Your task to perform on an android device: toggle show notifications on the lock screen Image 0: 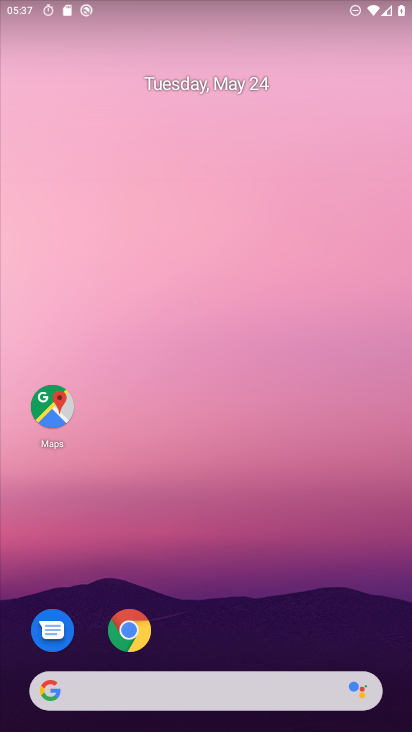
Step 0: drag from (210, 630) to (237, 79)
Your task to perform on an android device: toggle show notifications on the lock screen Image 1: 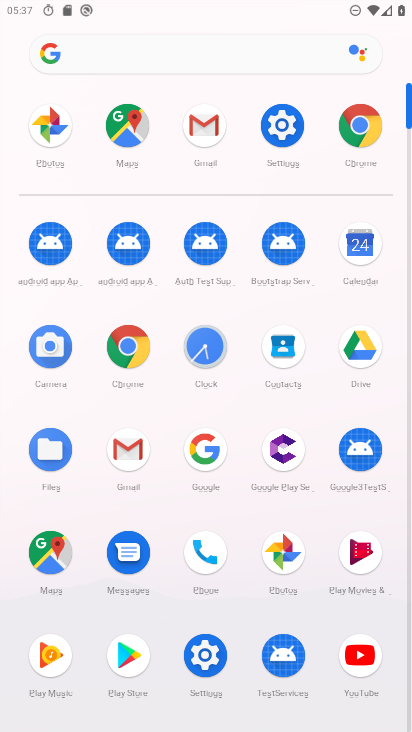
Step 1: click (264, 107)
Your task to perform on an android device: toggle show notifications on the lock screen Image 2: 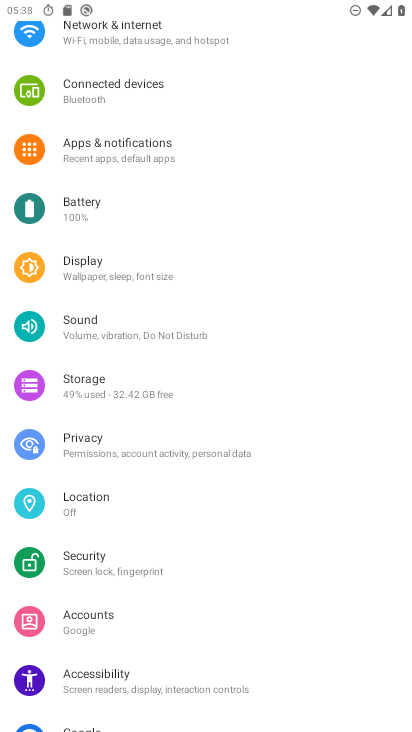
Step 2: click (234, 160)
Your task to perform on an android device: toggle show notifications on the lock screen Image 3: 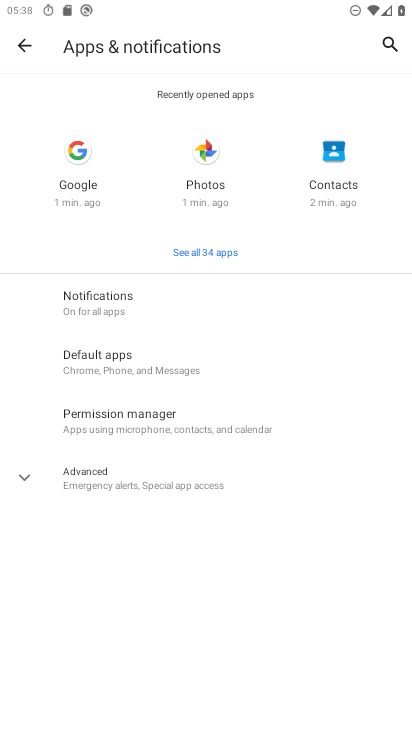
Step 3: click (133, 320)
Your task to perform on an android device: toggle show notifications on the lock screen Image 4: 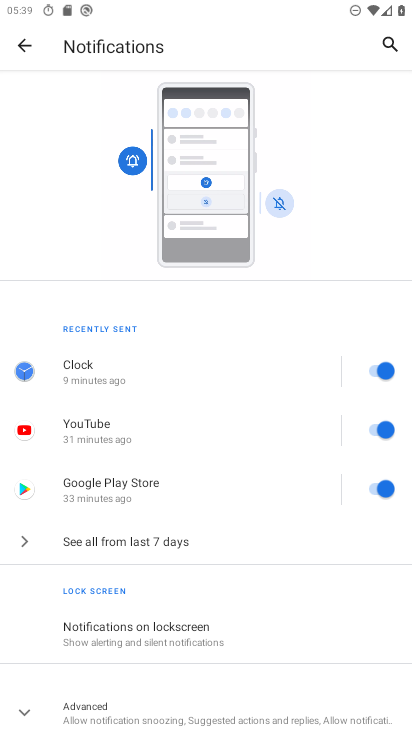
Step 4: click (133, 624)
Your task to perform on an android device: toggle show notifications on the lock screen Image 5: 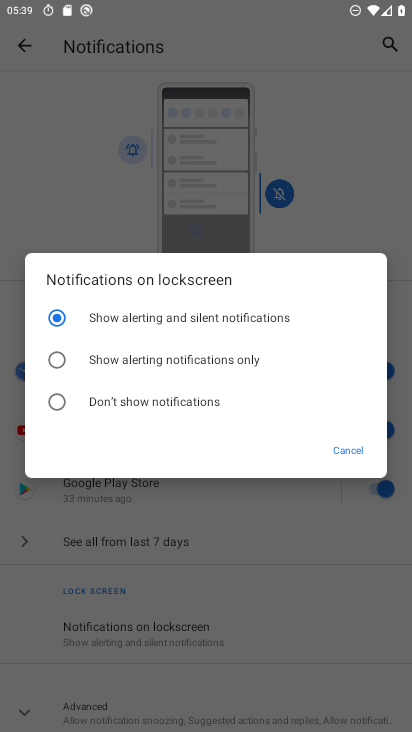
Step 5: task complete